Your task to perform on an android device: Open Google Chrome and click the shortcut for Amazon.com Image 0: 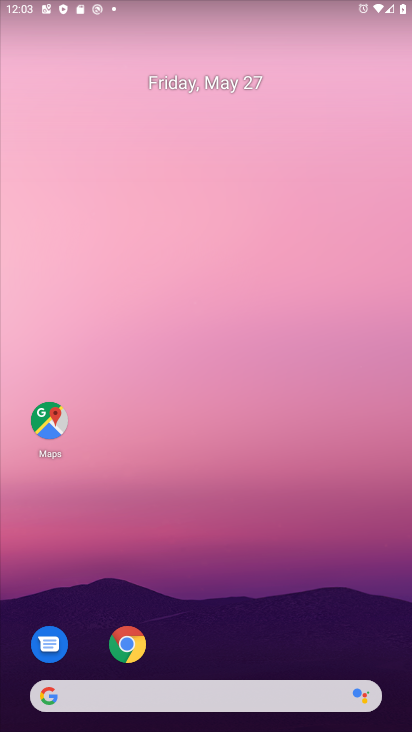
Step 0: click (122, 644)
Your task to perform on an android device: Open Google Chrome and click the shortcut for Amazon.com Image 1: 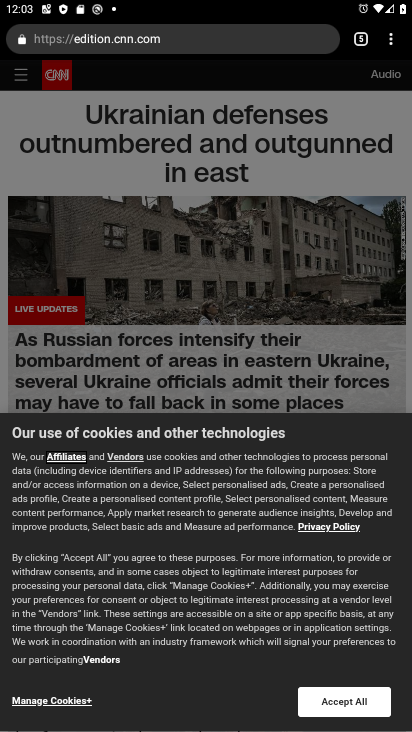
Step 1: click (359, 38)
Your task to perform on an android device: Open Google Chrome and click the shortcut for Amazon.com Image 2: 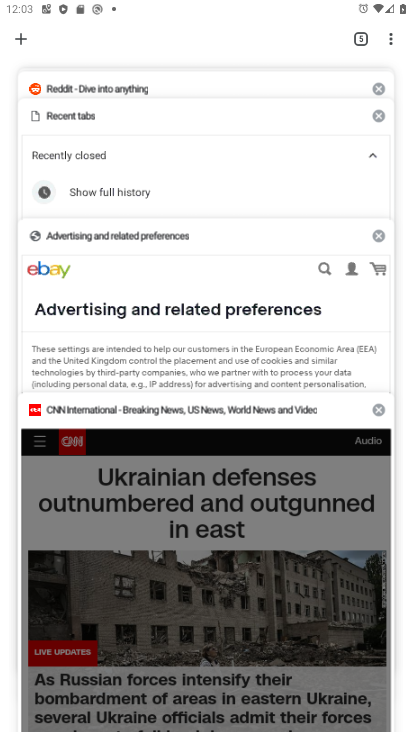
Step 2: click (27, 47)
Your task to perform on an android device: Open Google Chrome and click the shortcut for Amazon.com Image 3: 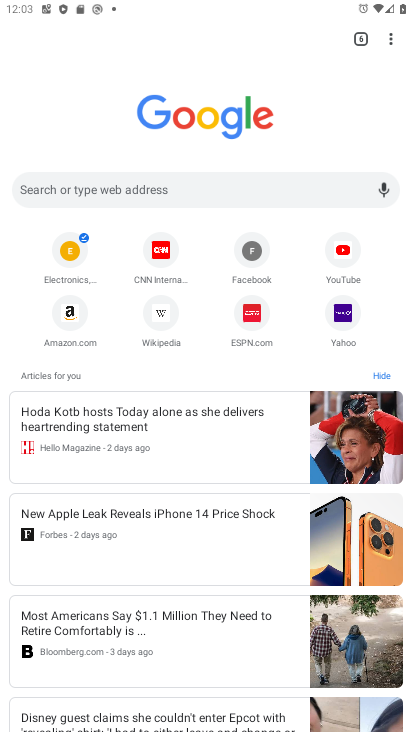
Step 3: click (61, 323)
Your task to perform on an android device: Open Google Chrome and click the shortcut for Amazon.com Image 4: 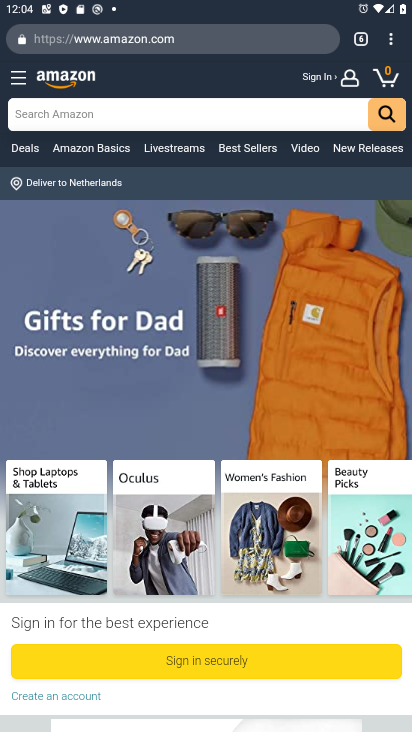
Step 4: task complete